Your task to perform on an android device: toggle pop-ups in chrome Image 0: 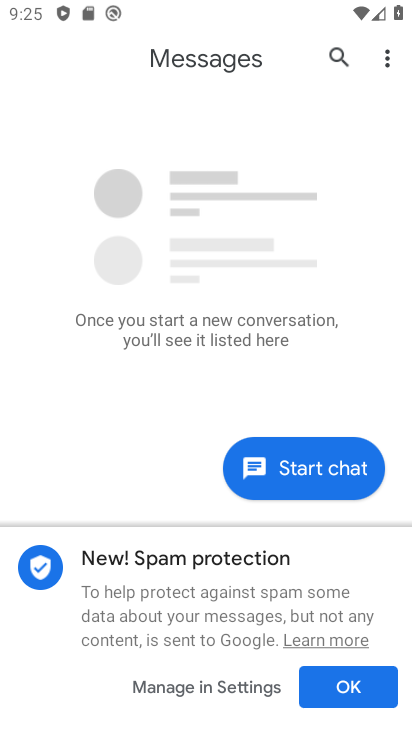
Step 0: press home button
Your task to perform on an android device: toggle pop-ups in chrome Image 1: 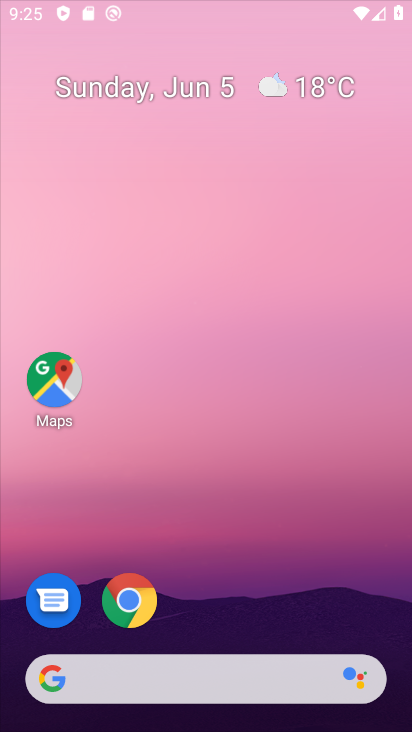
Step 1: drag from (347, 614) to (242, 86)
Your task to perform on an android device: toggle pop-ups in chrome Image 2: 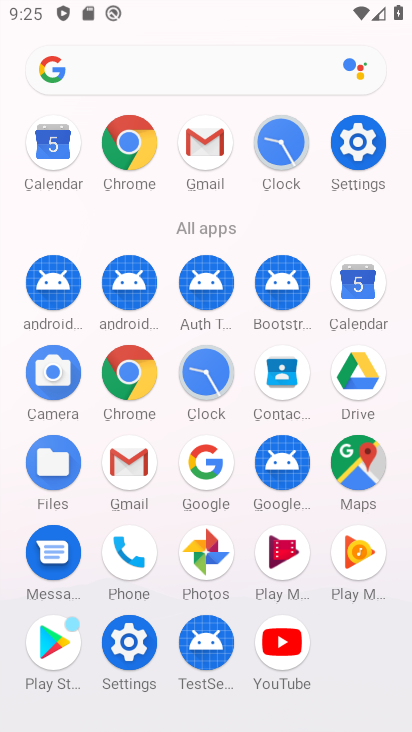
Step 2: click (136, 144)
Your task to perform on an android device: toggle pop-ups in chrome Image 3: 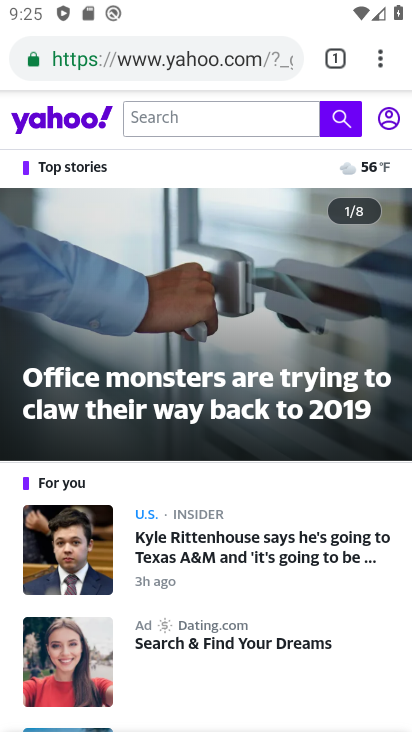
Step 3: drag from (388, 57) to (223, 633)
Your task to perform on an android device: toggle pop-ups in chrome Image 4: 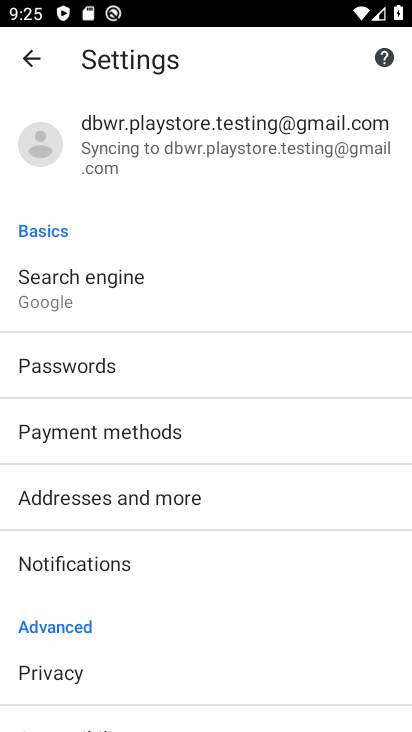
Step 4: drag from (176, 616) to (247, 70)
Your task to perform on an android device: toggle pop-ups in chrome Image 5: 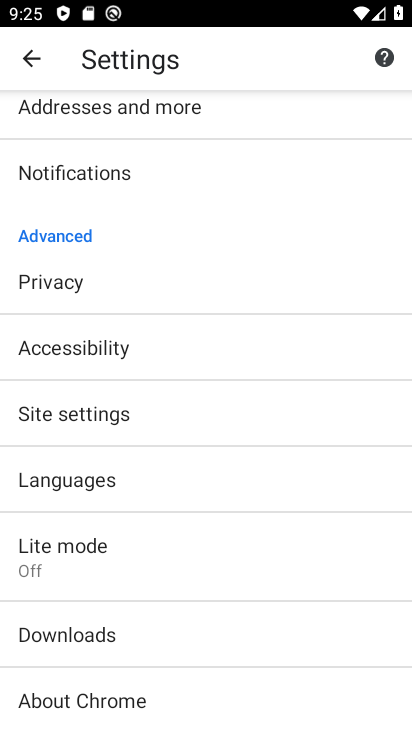
Step 5: click (136, 413)
Your task to perform on an android device: toggle pop-ups in chrome Image 6: 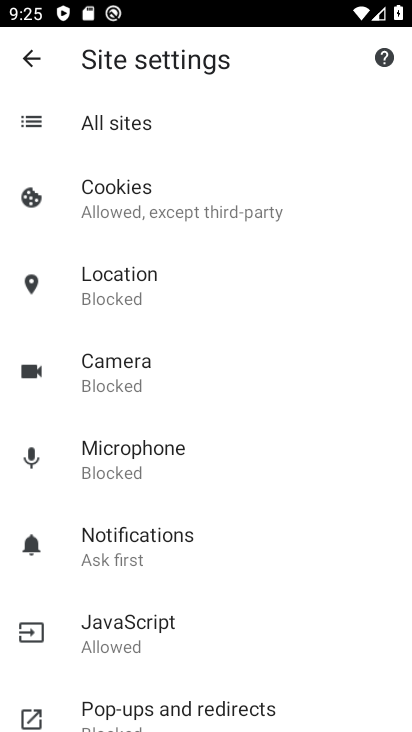
Step 6: click (166, 710)
Your task to perform on an android device: toggle pop-ups in chrome Image 7: 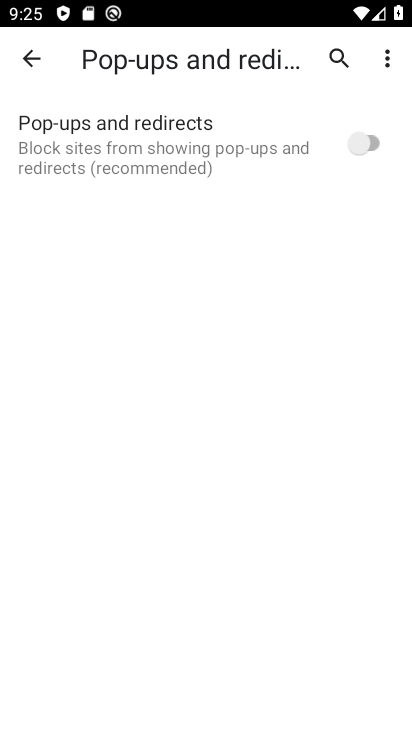
Step 7: click (381, 71)
Your task to perform on an android device: toggle pop-ups in chrome Image 8: 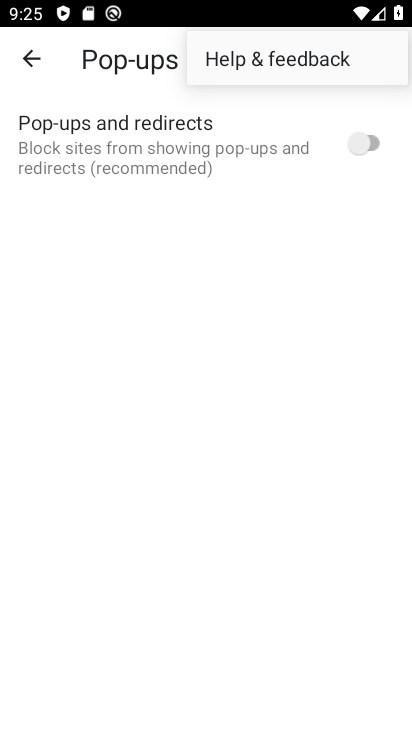
Step 8: click (253, 272)
Your task to perform on an android device: toggle pop-ups in chrome Image 9: 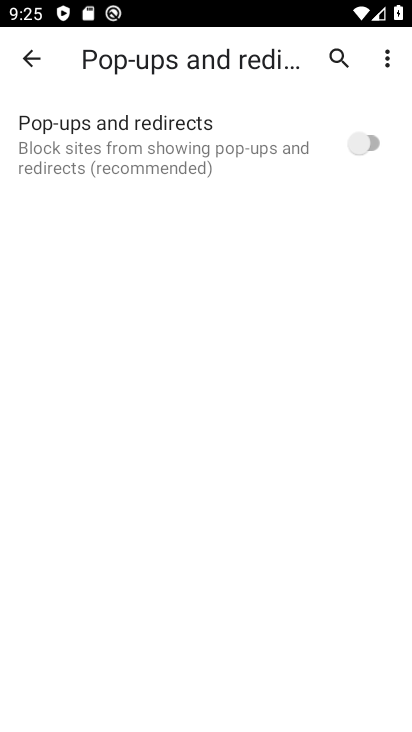
Step 9: click (353, 142)
Your task to perform on an android device: toggle pop-ups in chrome Image 10: 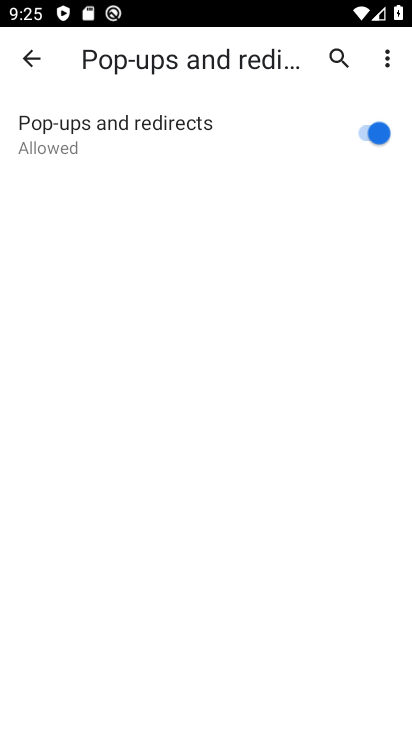
Step 10: task complete